Your task to perform on an android device: add a label to a message in the gmail app Image 0: 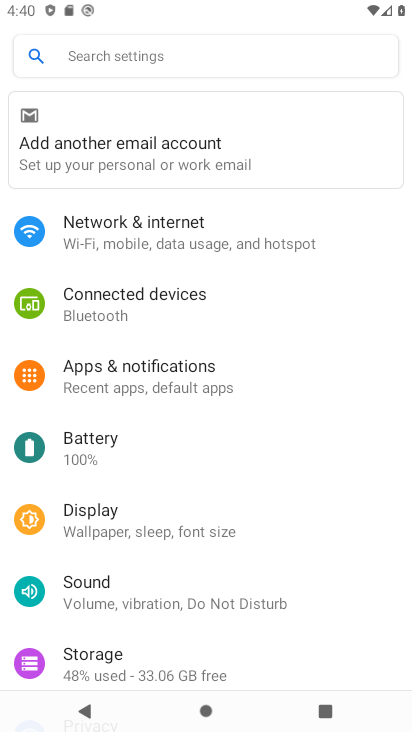
Step 0: press home button
Your task to perform on an android device: add a label to a message in the gmail app Image 1: 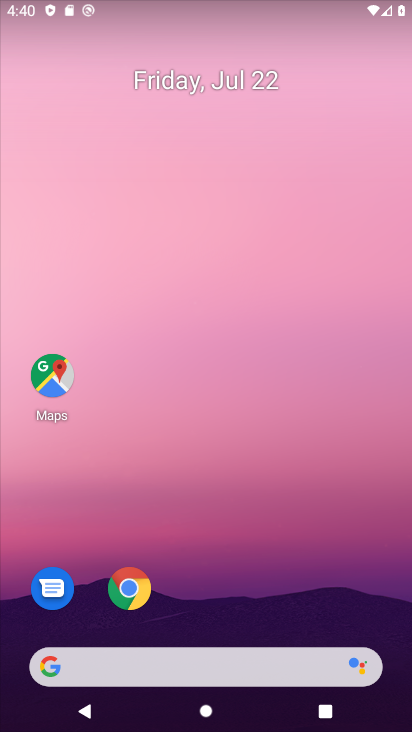
Step 1: drag from (323, 487) to (305, 230)
Your task to perform on an android device: add a label to a message in the gmail app Image 2: 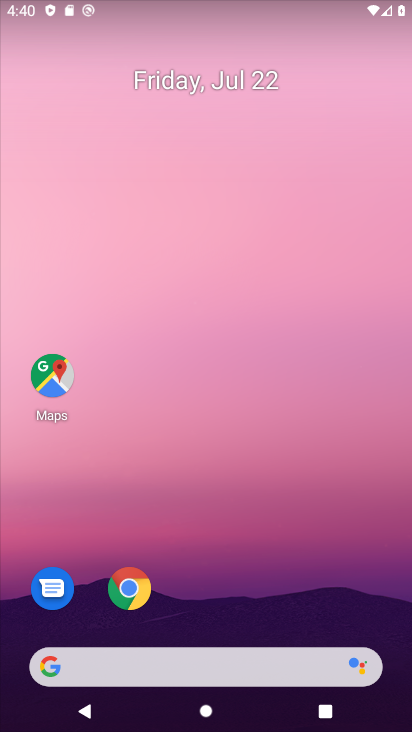
Step 2: drag from (239, 516) to (226, 263)
Your task to perform on an android device: add a label to a message in the gmail app Image 3: 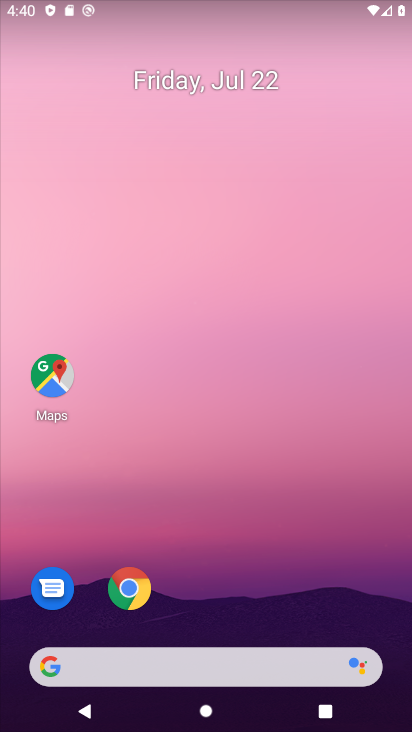
Step 3: drag from (252, 585) to (247, 153)
Your task to perform on an android device: add a label to a message in the gmail app Image 4: 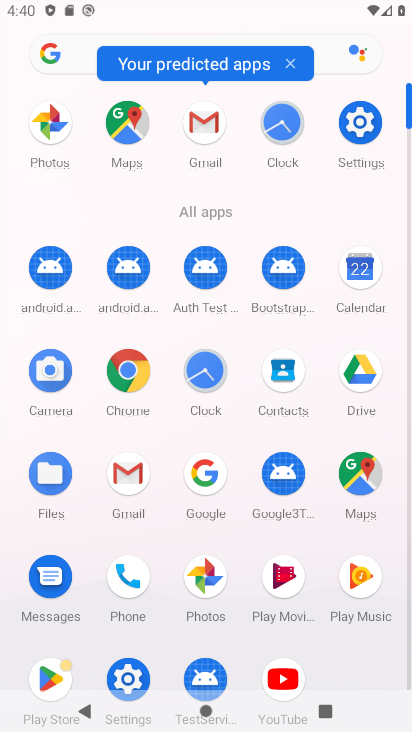
Step 4: click (209, 105)
Your task to perform on an android device: add a label to a message in the gmail app Image 5: 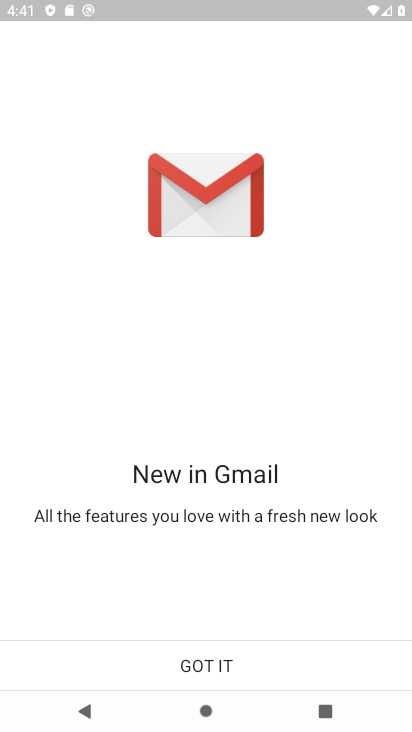
Step 5: click (199, 666)
Your task to perform on an android device: add a label to a message in the gmail app Image 6: 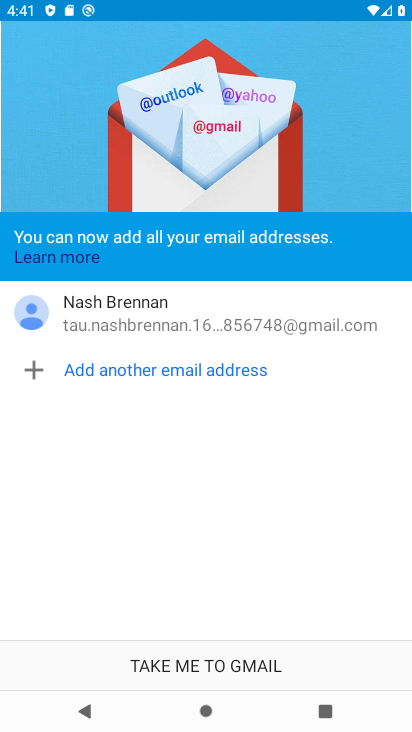
Step 6: click (199, 666)
Your task to perform on an android device: add a label to a message in the gmail app Image 7: 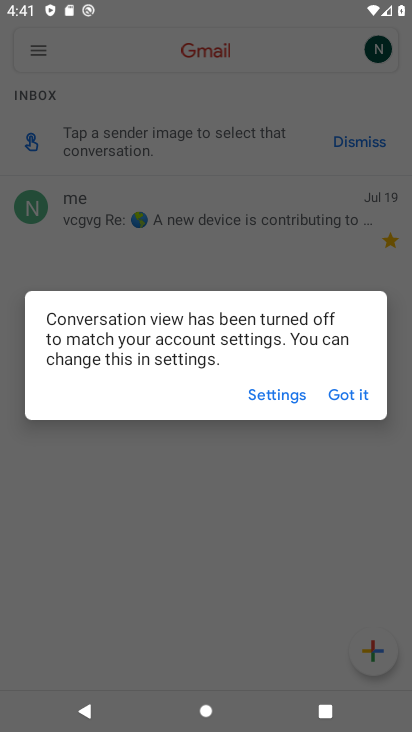
Step 7: click (354, 395)
Your task to perform on an android device: add a label to a message in the gmail app Image 8: 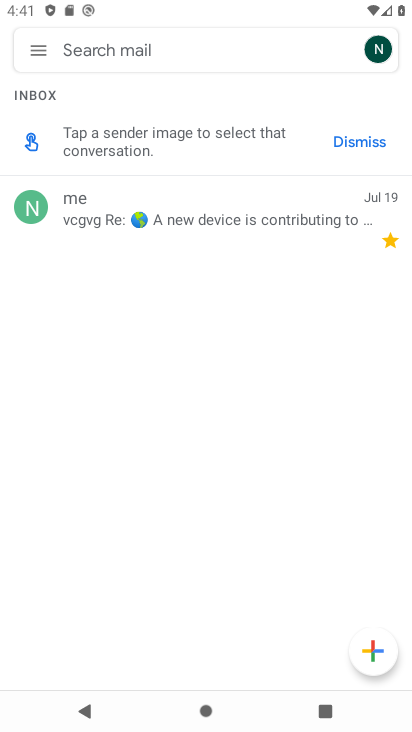
Step 8: task complete